Your task to perform on an android device: find which apps use the phone's location Image 0: 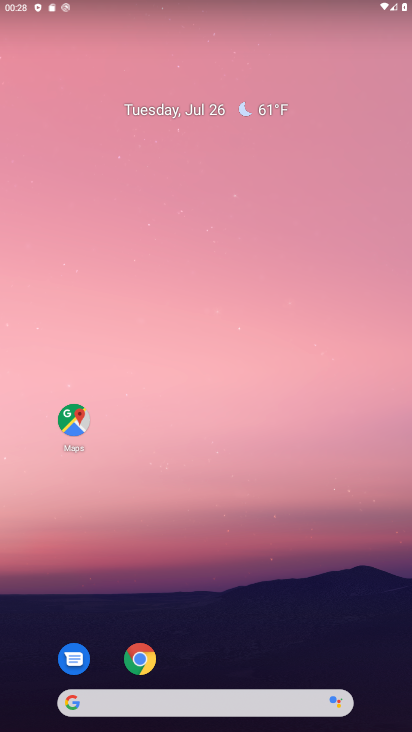
Step 0: drag from (292, 642) to (260, 39)
Your task to perform on an android device: find which apps use the phone's location Image 1: 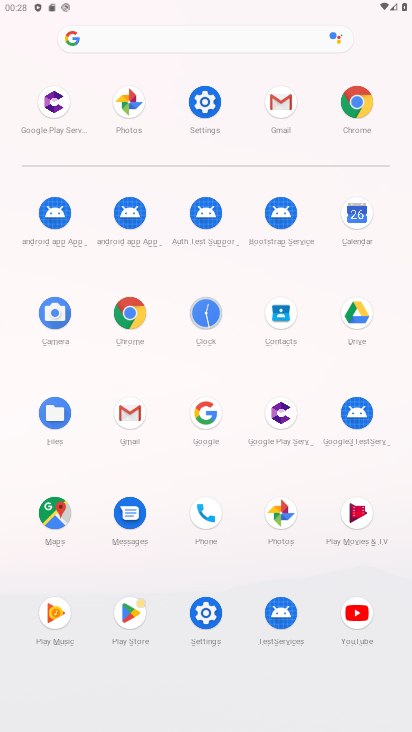
Step 1: click (208, 97)
Your task to perform on an android device: find which apps use the phone's location Image 2: 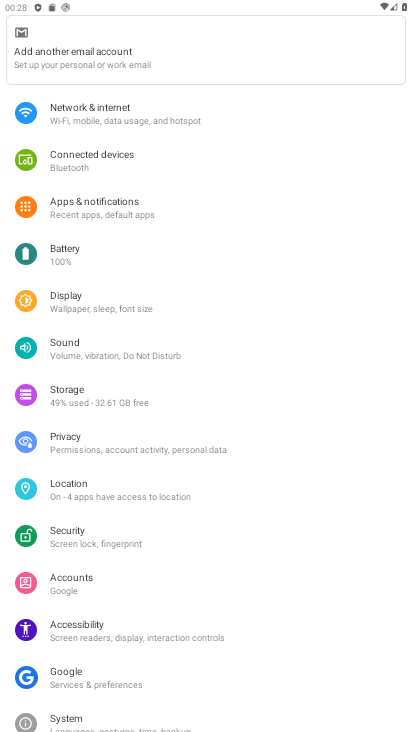
Step 2: click (75, 496)
Your task to perform on an android device: find which apps use the phone's location Image 3: 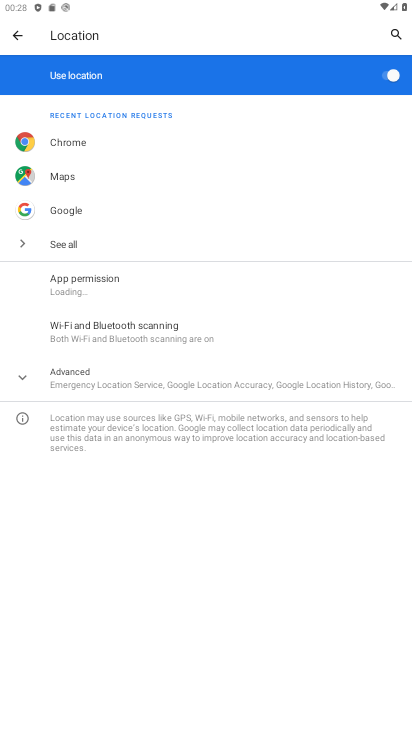
Step 3: click (116, 297)
Your task to perform on an android device: find which apps use the phone's location Image 4: 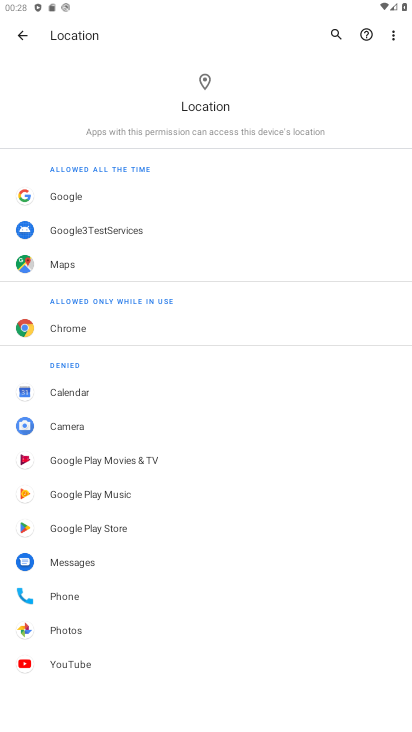
Step 4: task complete